Your task to perform on an android device: Is it going to rain tomorrow? Image 0: 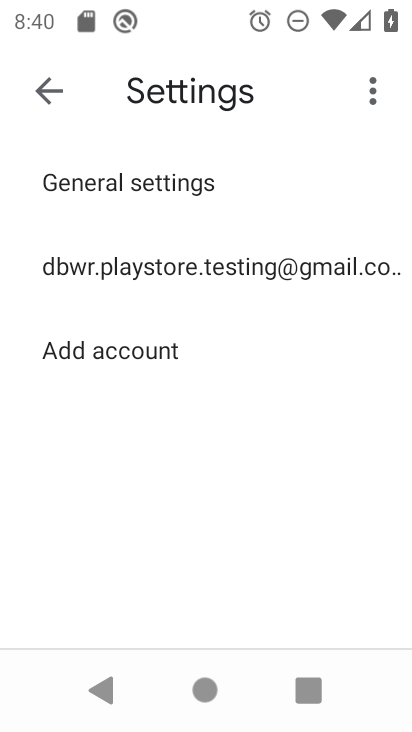
Step 0: press home button
Your task to perform on an android device: Is it going to rain tomorrow? Image 1: 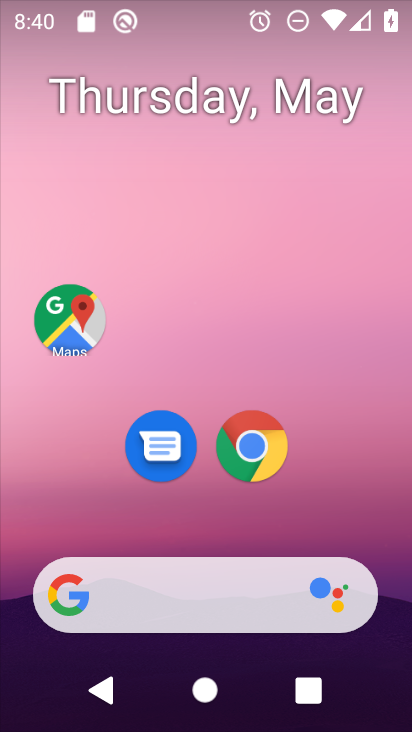
Step 1: drag from (396, 524) to (360, 96)
Your task to perform on an android device: Is it going to rain tomorrow? Image 2: 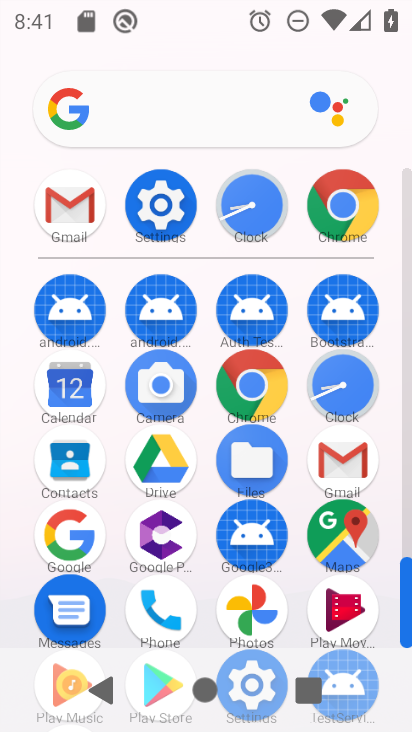
Step 2: click (343, 225)
Your task to perform on an android device: Is it going to rain tomorrow? Image 3: 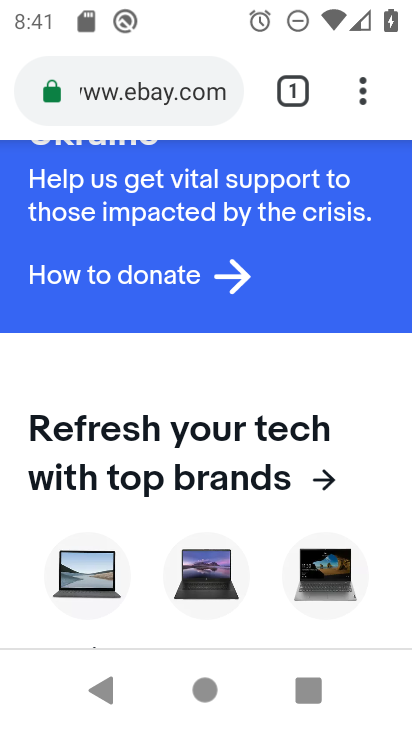
Step 3: click (167, 83)
Your task to perform on an android device: Is it going to rain tomorrow? Image 4: 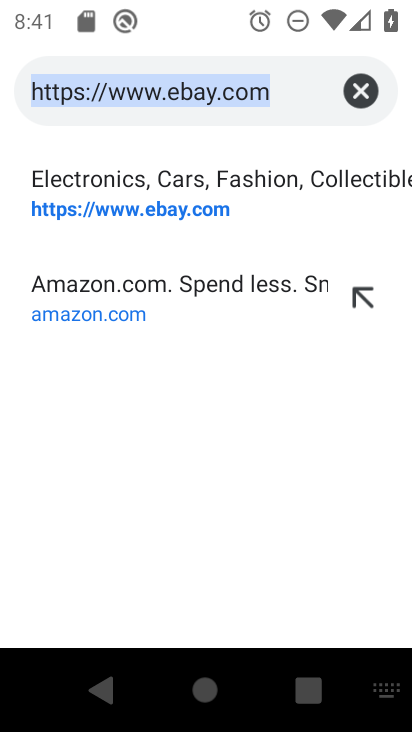
Step 4: click (344, 92)
Your task to perform on an android device: Is it going to rain tomorrow? Image 5: 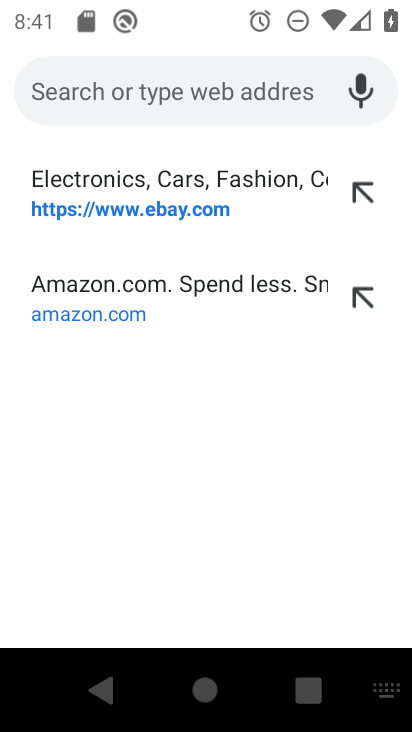
Step 5: type "is it going to rain tomorrow"
Your task to perform on an android device: Is it going to rain tomorrow? Image 6: 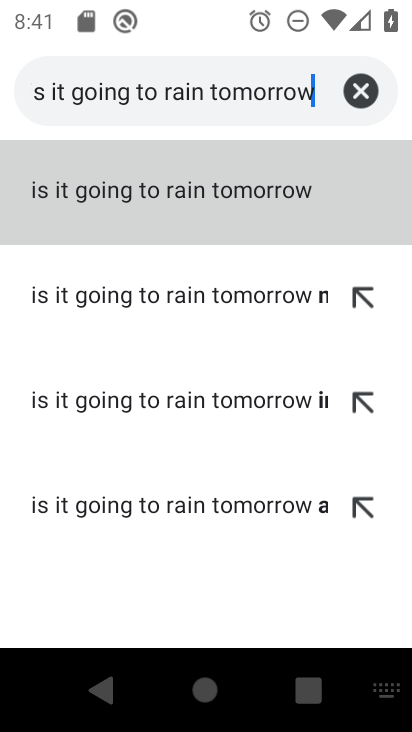
Step 6: click (131, 202)
Your task to perform on an android device: Is it going to rain tomorrow? Image 7: 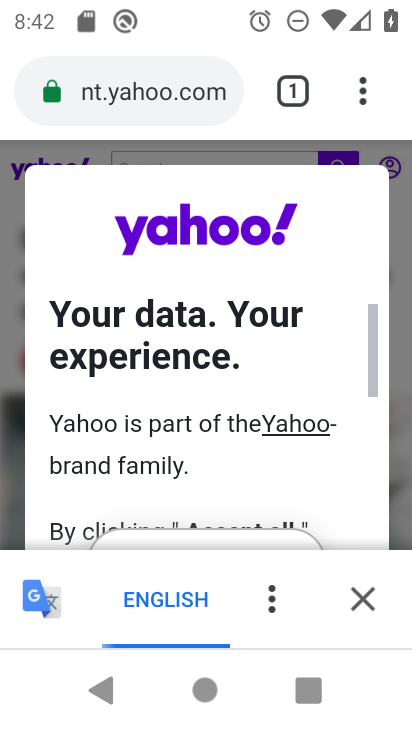
Step 7: task complete